Your task to perform on an android device: change the clock display to show seconds Image 0: 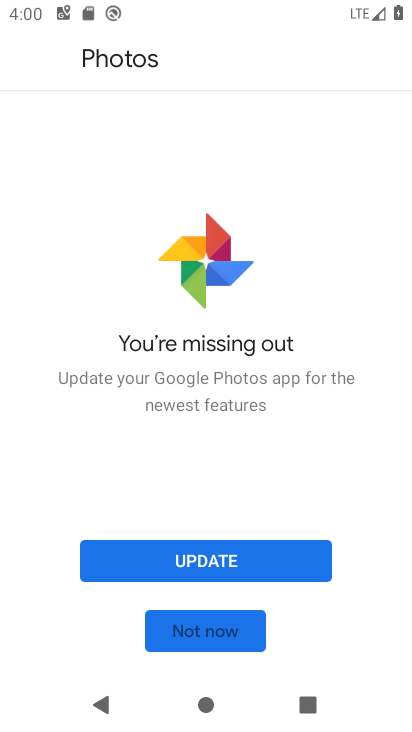
Step 0: press home button
Your task to perform on an android device: change the clock display to show seconds Image 1: 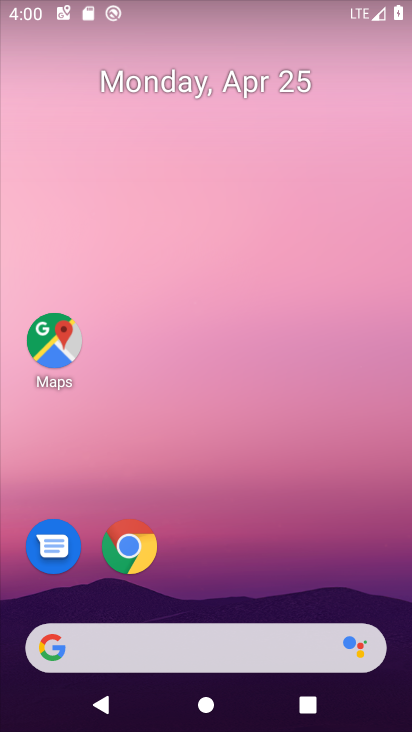
Step 1: drag from (238, 503) to (284, 74)
Your task to perform on an android device: change the clock display to show seconds Image 2: 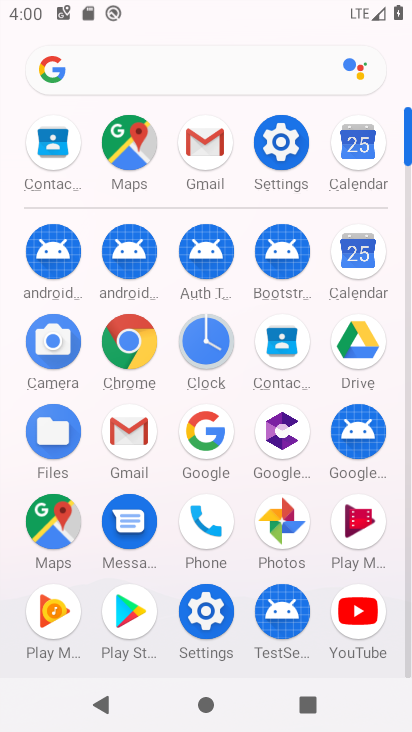
Step 2: click (219, 335)
Your task to perform on an android device: change the clock display to show seconds Image 3: 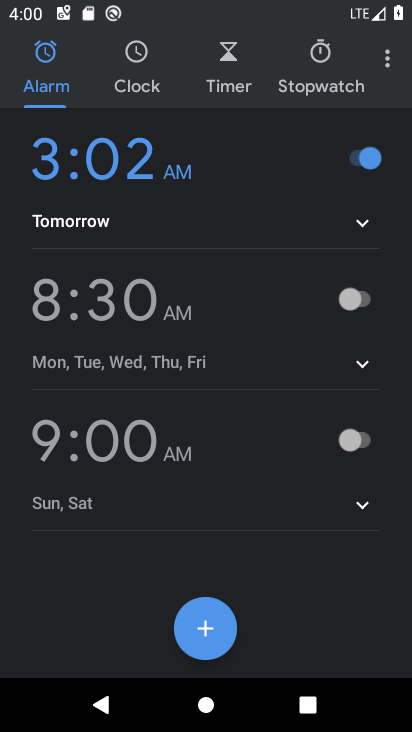
Step 3: click (382, 64)
Your task to perform on an android device: change the clock display to show seconds Image 4: 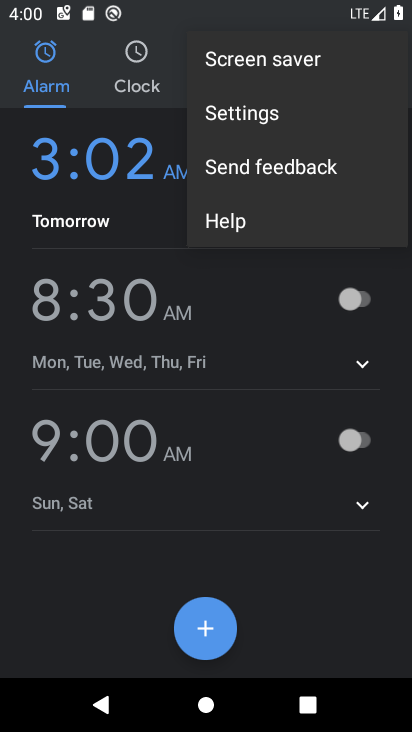
Step 4: click (325, 119)
Your task to perform on an android device: change the clock display to show seconds Image 5: 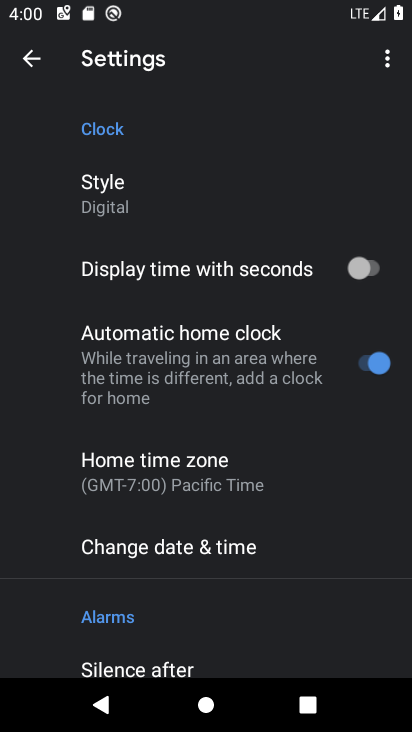
Step 5: click (354, 268)
Your task to perform on an android device: change the clock display to show seconds Image 6: 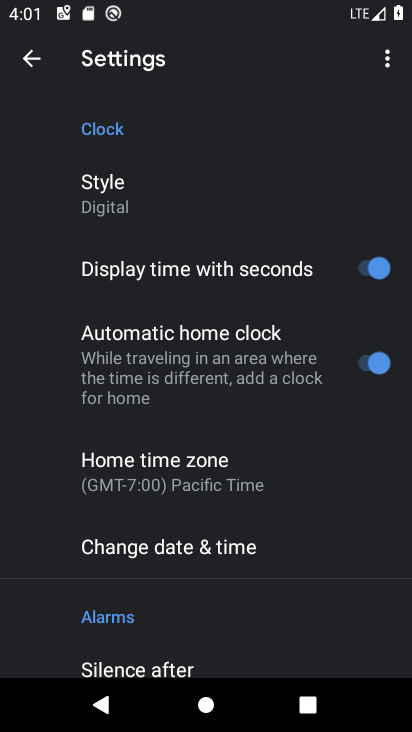
Step 6: task complete